Your task to perform on an android device: turn on airplane mode Image 0: 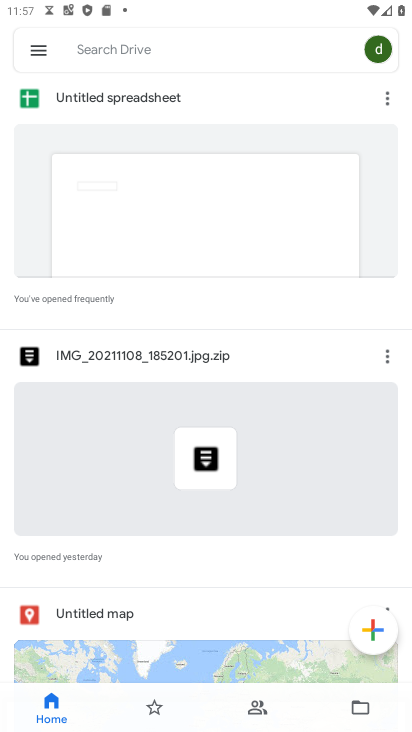
Step 0: press home button
Your task to perform on an android device: turn on airplane mode Image 1: 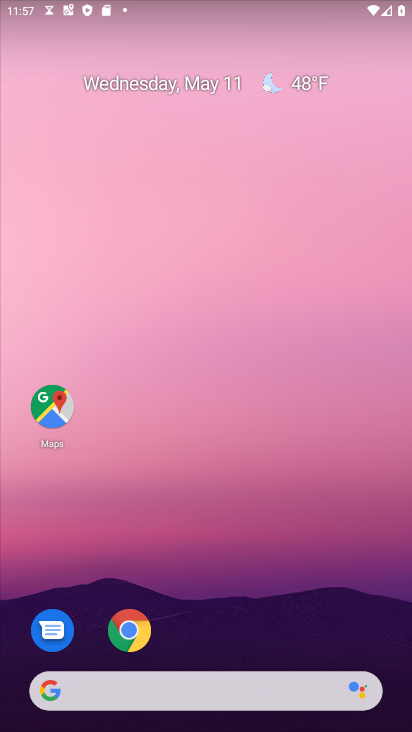
Step 1: drag from (204, 720) to (157, 195)
Your task to perform on an android device: turn on airplane mode Image 2: 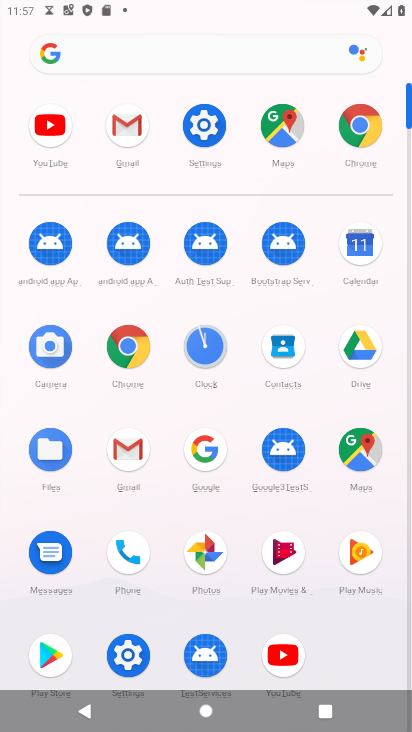
Step 2: click (211, 121)
Your task to perform on an android device: turn on airplane mode Image 3: 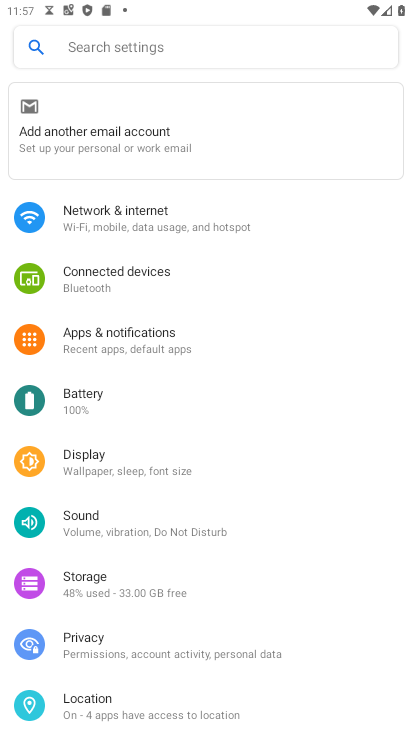
Step 3: click (100, 215)
Your task to perform on an android device: turn on airplane mode Image 4: 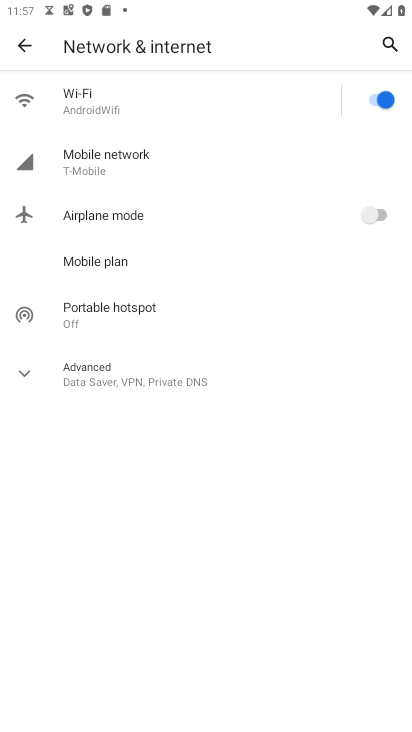
Step 4: click (382, 215)
Your task to perform on an android device: turn on airplane mode Image 5: 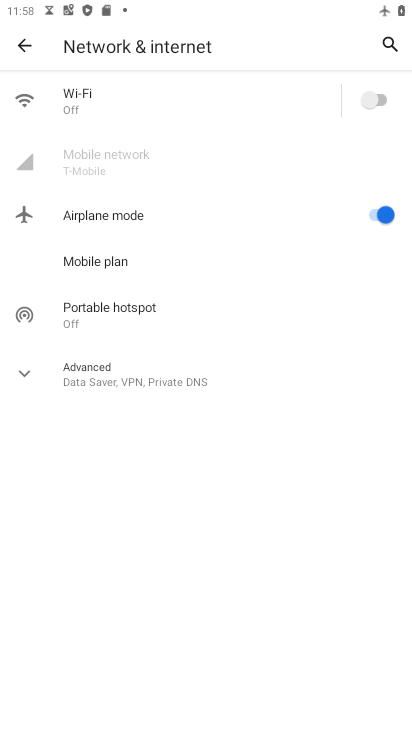
Step 5: task complete